Your task to perform on an android device: turn pop-ups on in chrome Image 0: 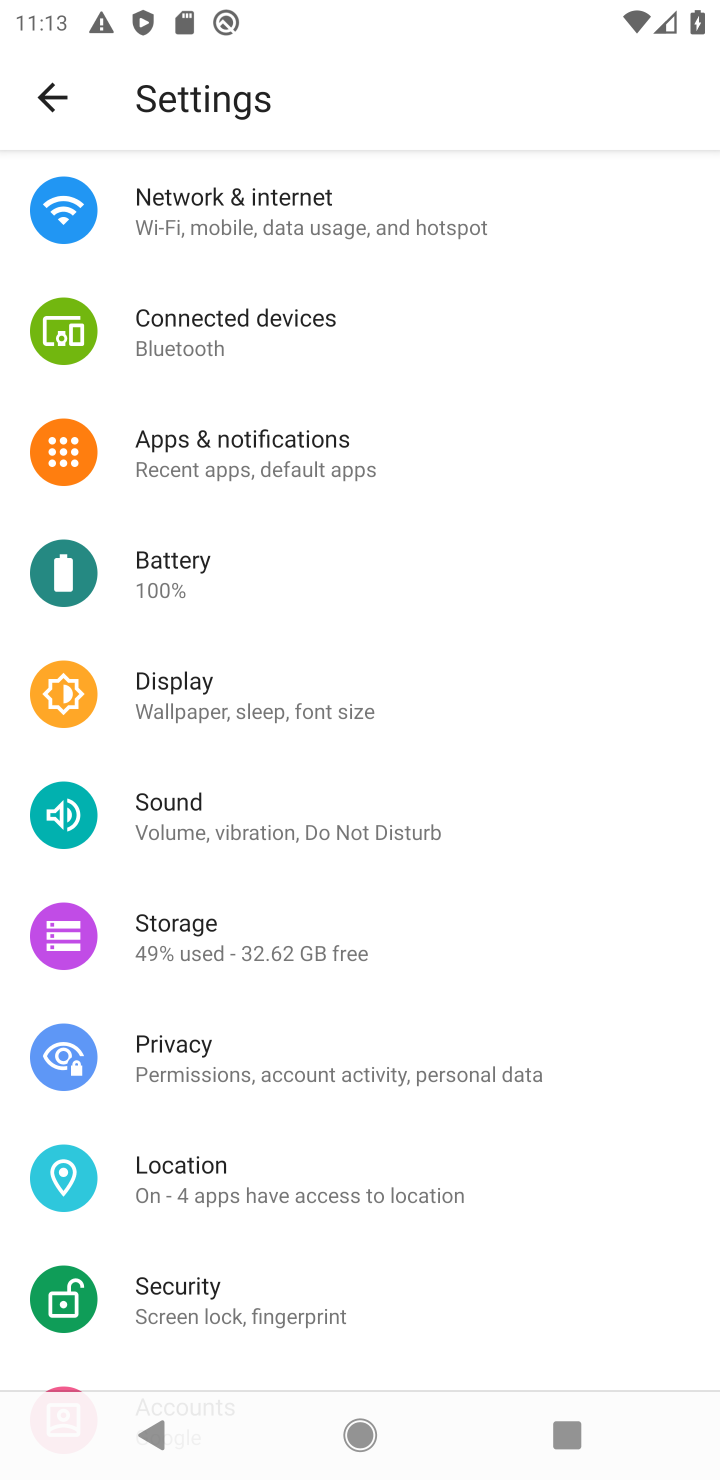
Step 0: press home button
Your task to perform on an android device: turn pop-ups on in chrome Image 1: 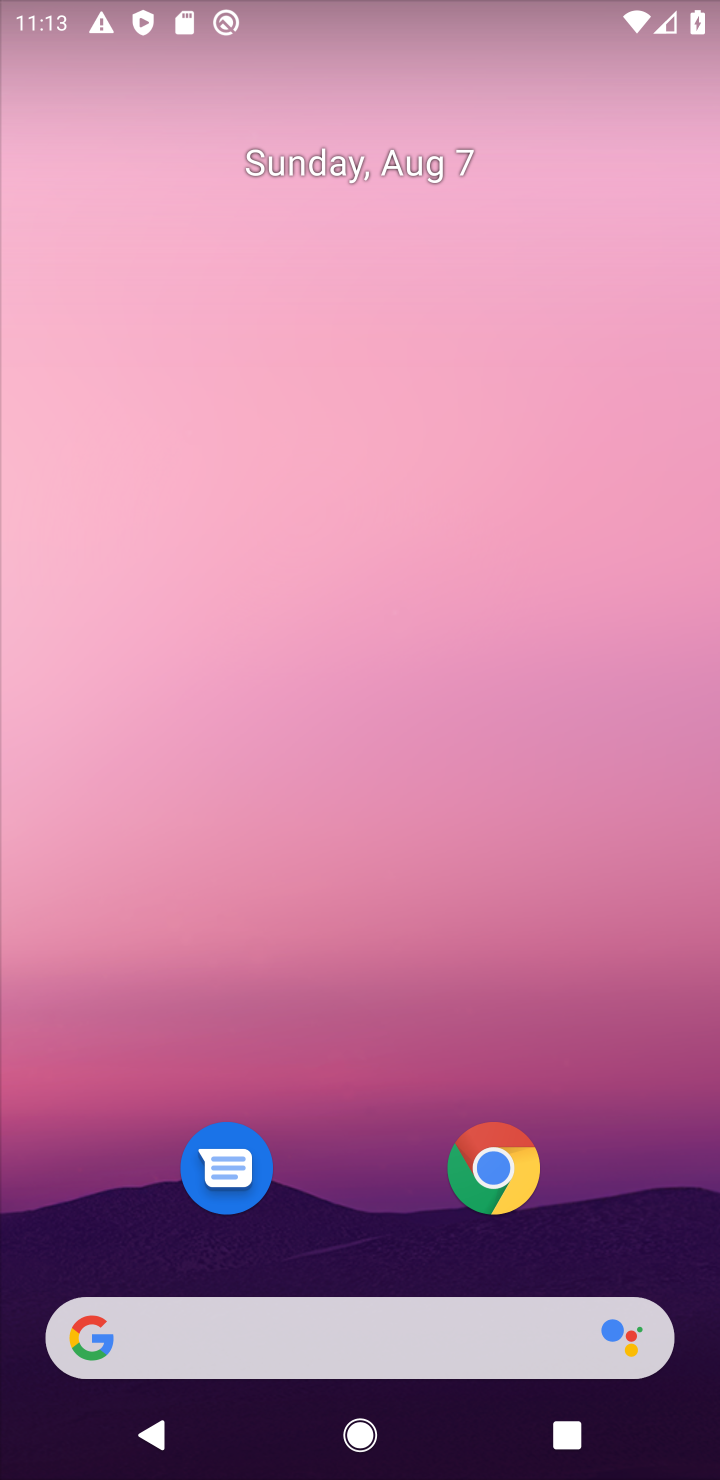
Step 1: click (473, 1157)
Your task to perform on an android device: turn pop-ups on in chrome Image 2: 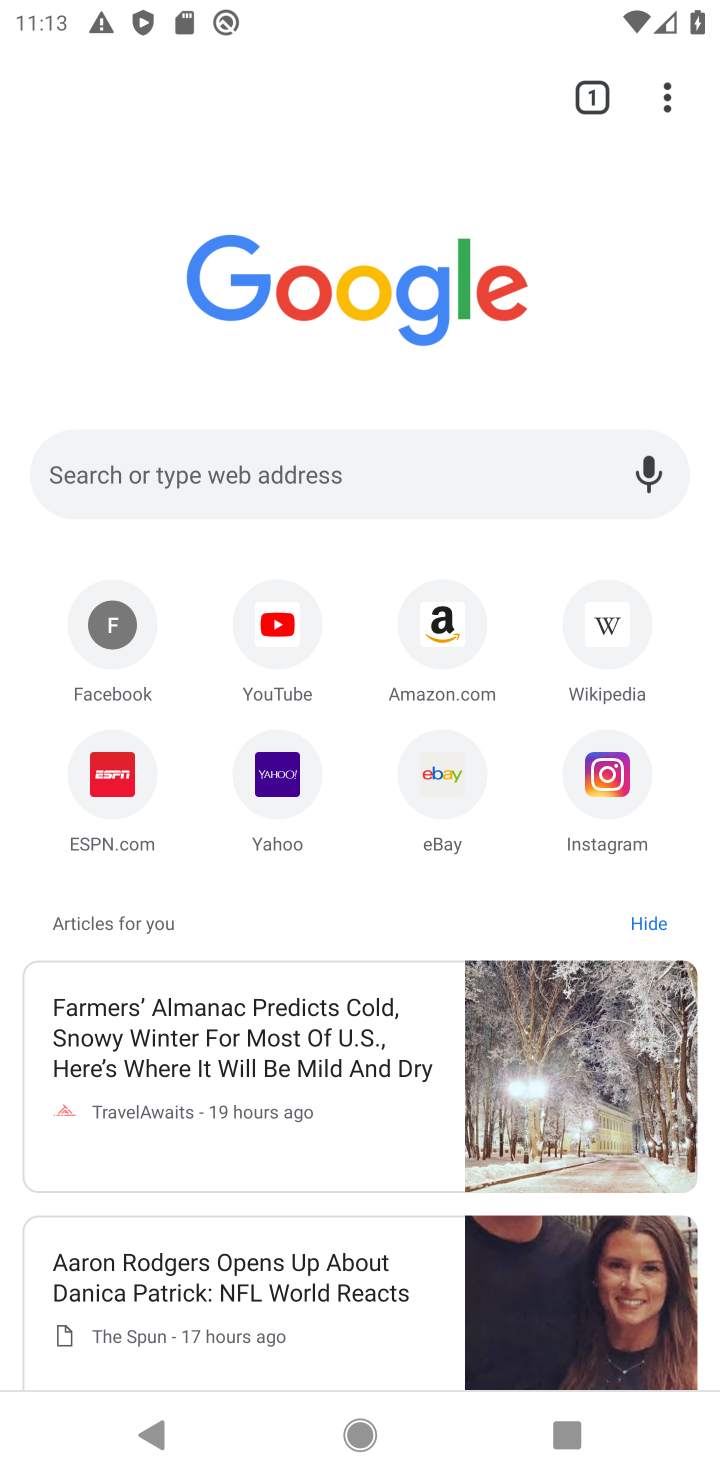
Step 2: click (673, 100)
Your task to perform on an android device: turn pop-ups on in chrome Image 3: 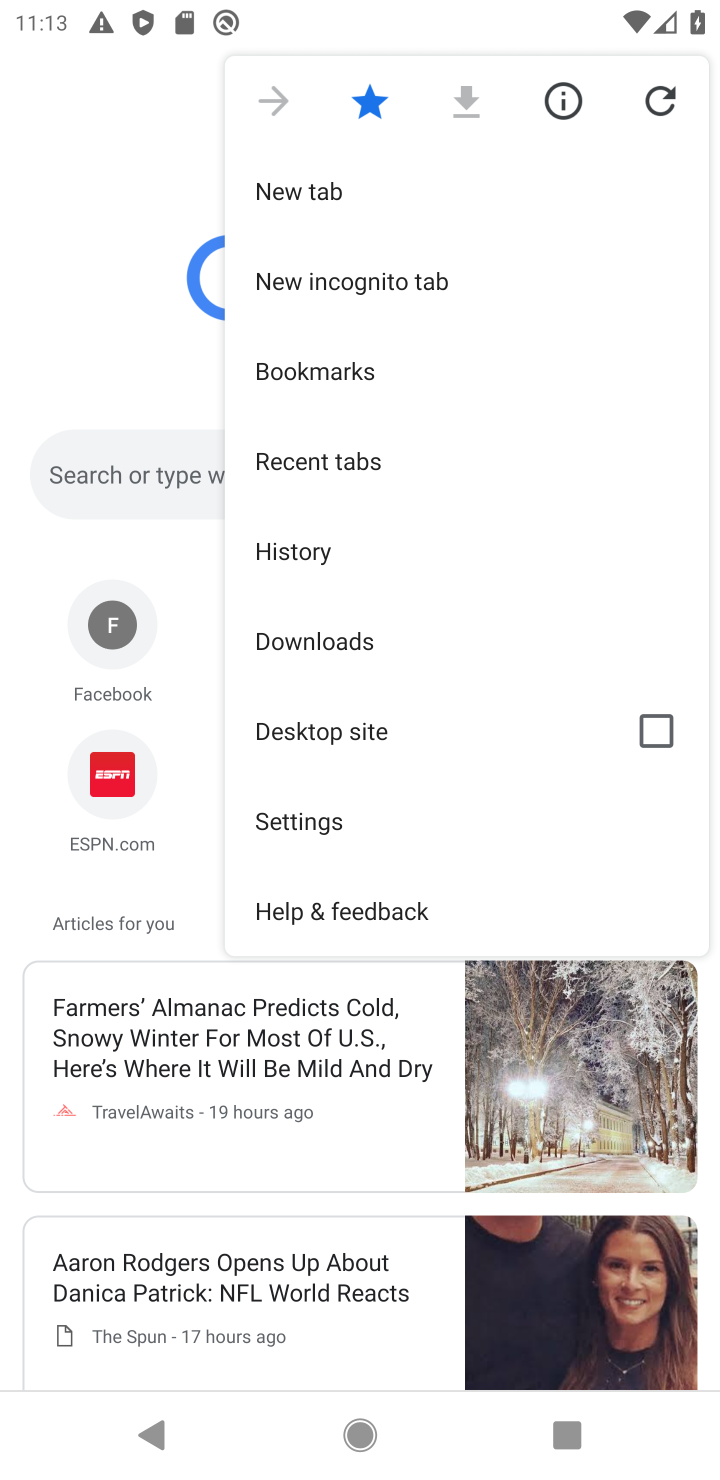
Step 3: click (291, 820)
Your task to perform on an android device: turn pop-ups on in chrome Image 4: 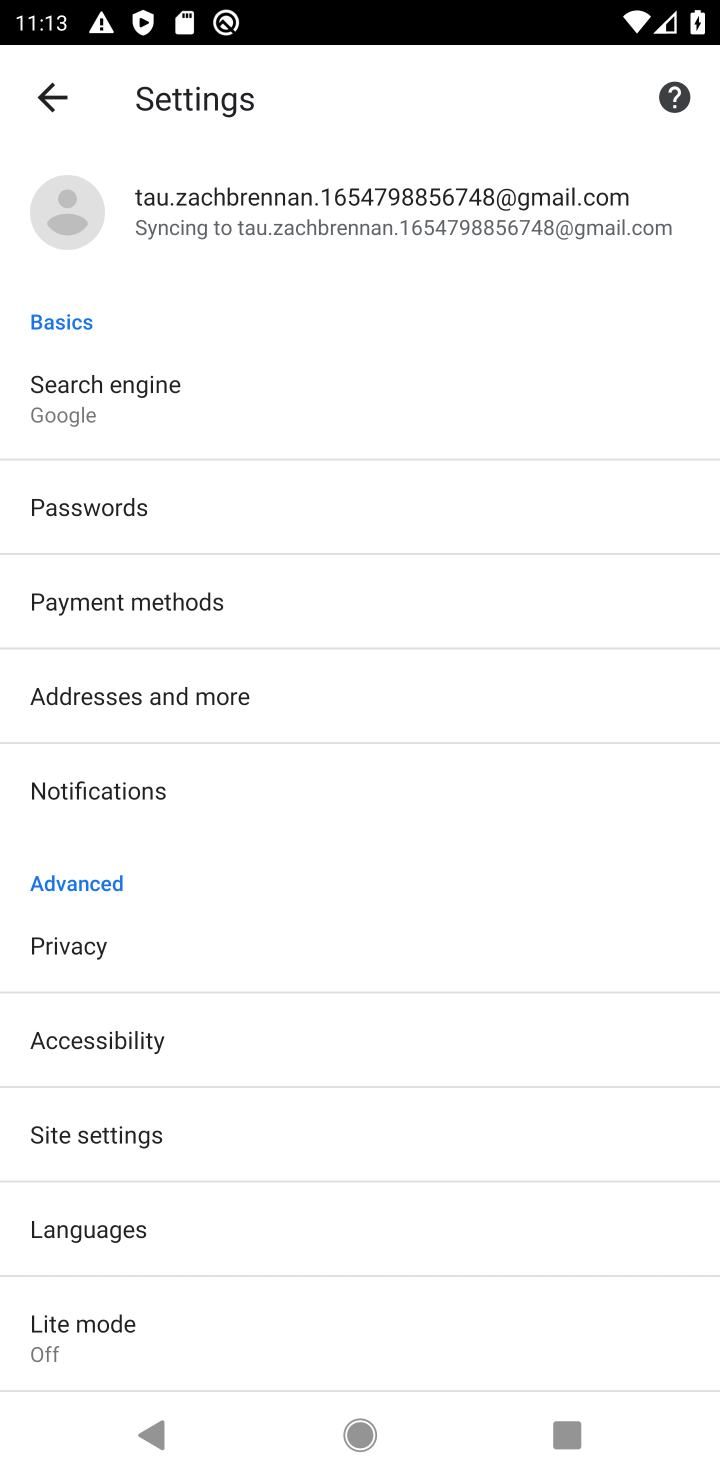
Step 4: click (90, 1113)
Your task to perform on an android device: turn pop-ups on in chrome Image 5: 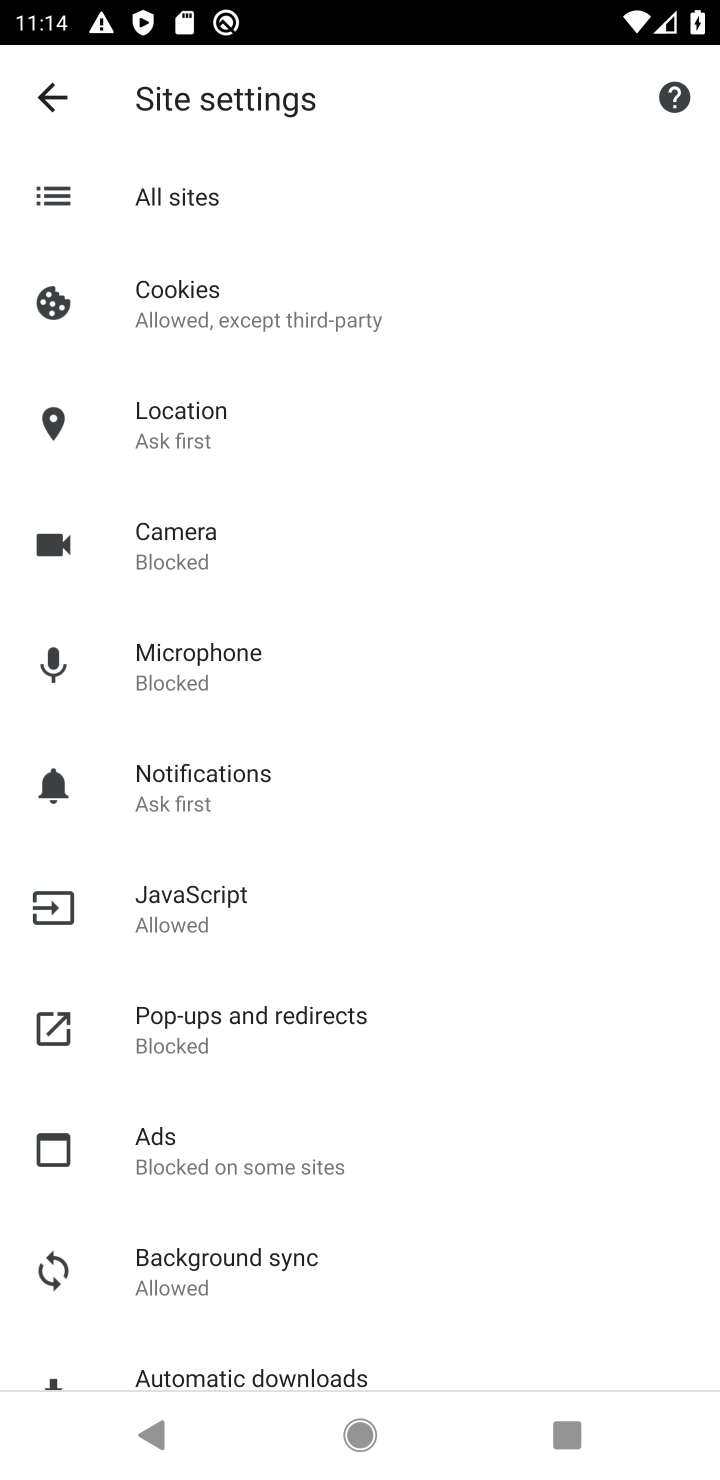
Step 5: click (254, 1024)
Your task to perform on an android device: turn pop-ups on in chrome Image 6: 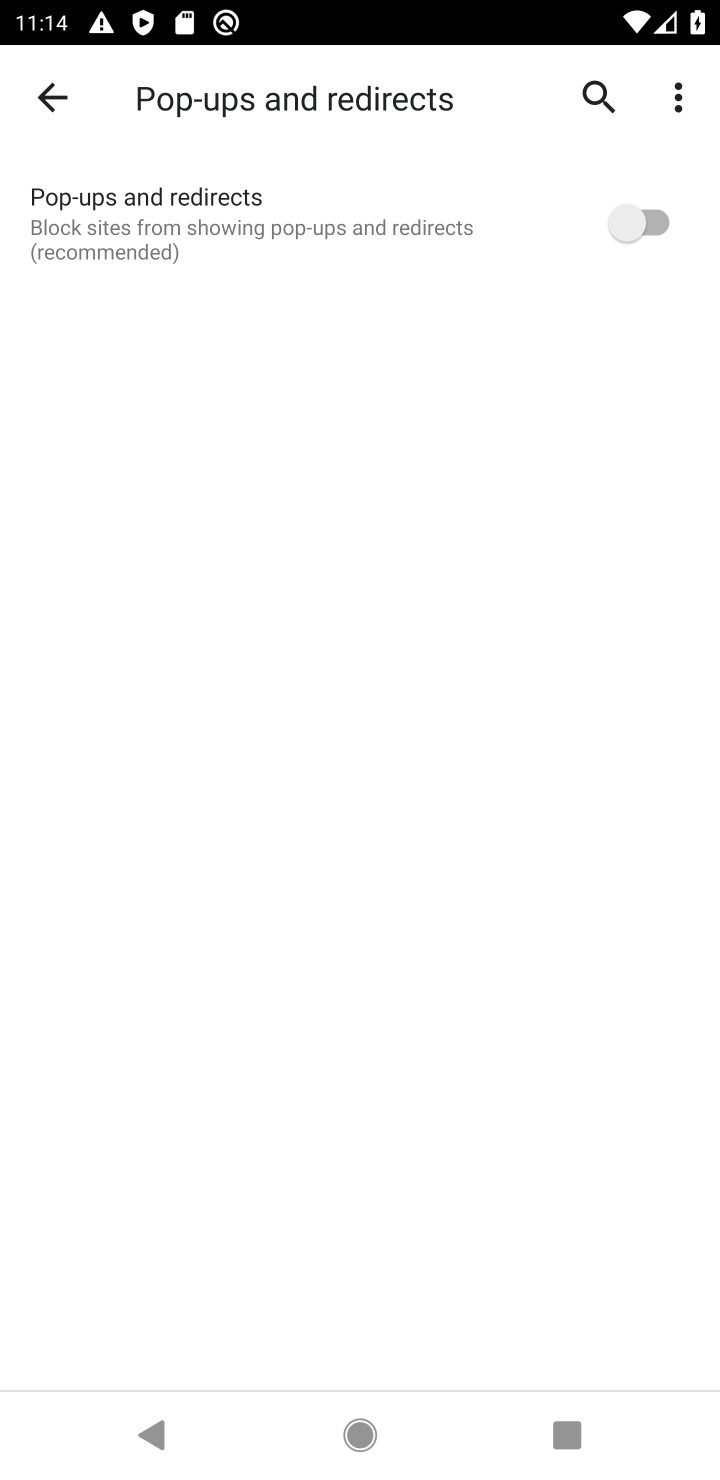
Step 6: click (635, 223)
Your task to perform on an android device: turn pop-ups on in chrome Image 7: 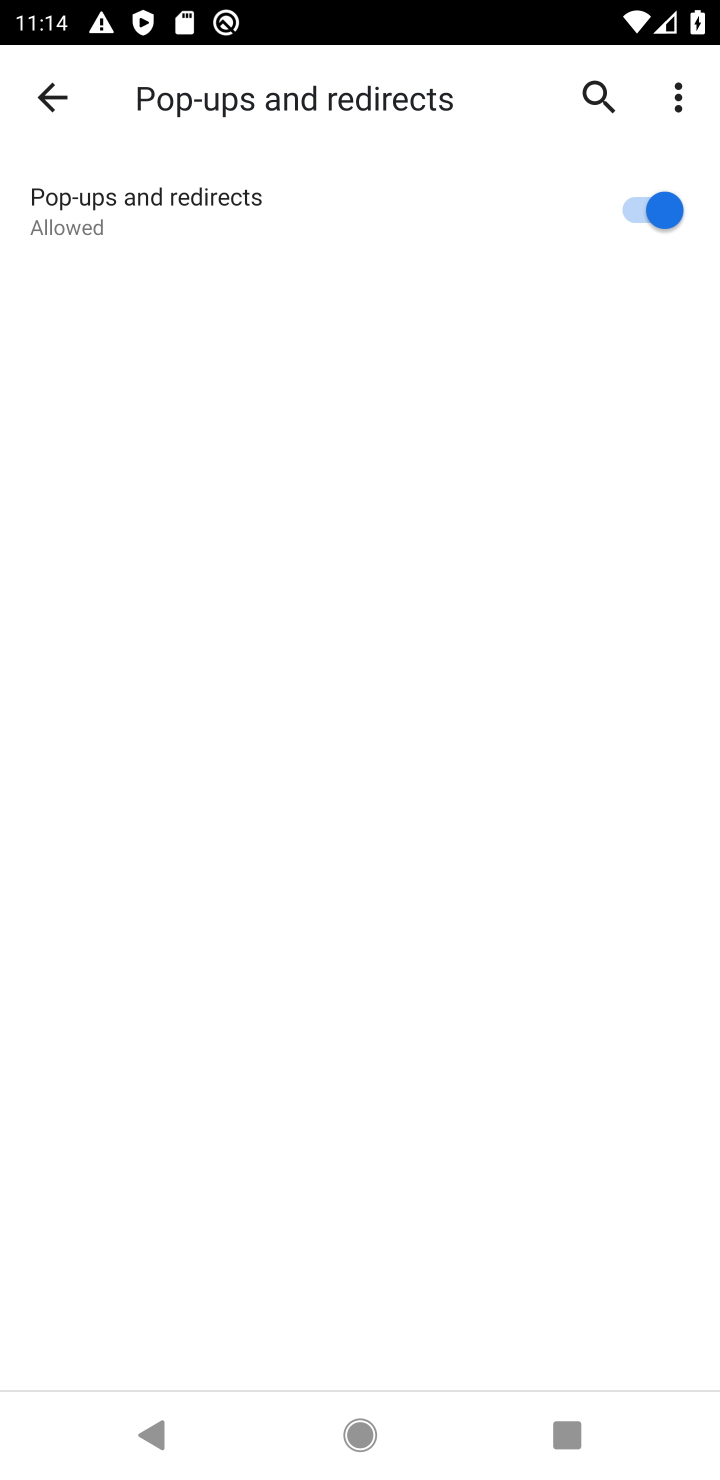
Step 7: task complete